Your task to perform on an android device: turn on javascript in the chrome app Image 0: 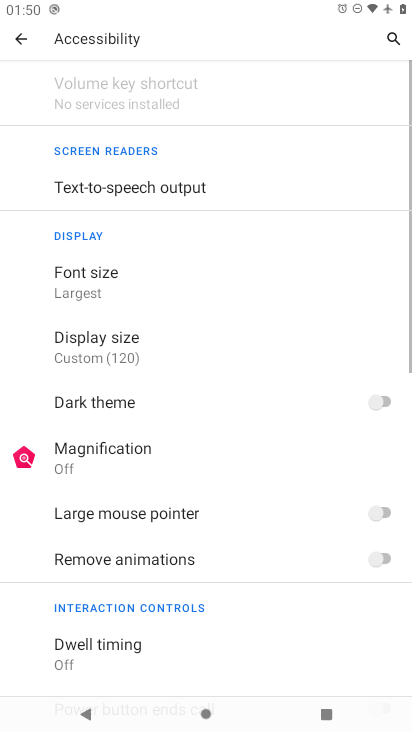
Step 0: press home button
Your task to perform on an android device: turn on javascript in the chrome app Image 1: 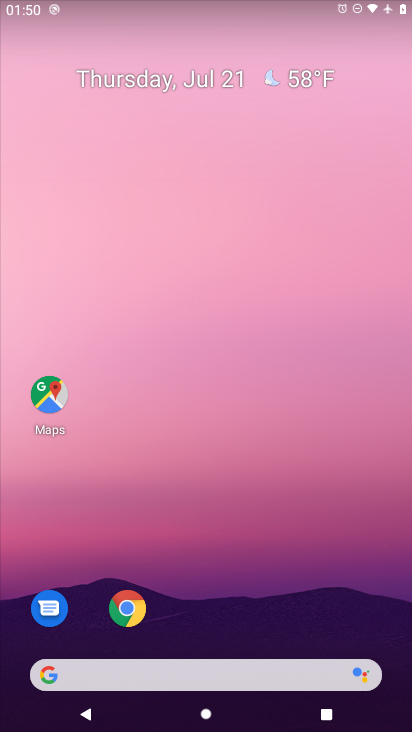
Step 1: drag from (249, 616) to (278, 68)
Your task to perform on an android device: turn on javascript in the chrome app Image 2: 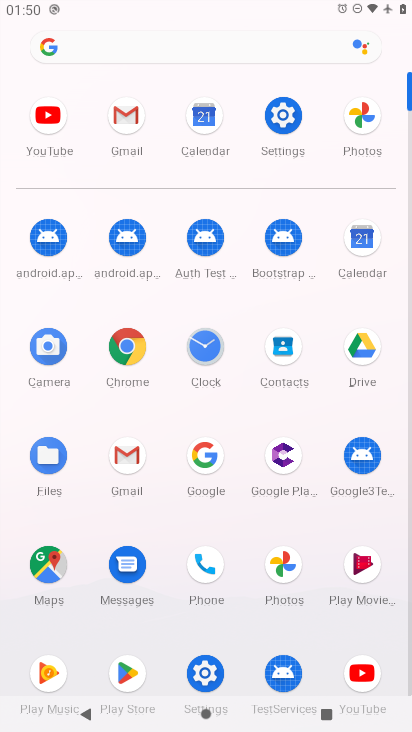
Step 2: click (127, 359)
Your task to perform on an android device: turn on javascript in the chrome app Image 3: 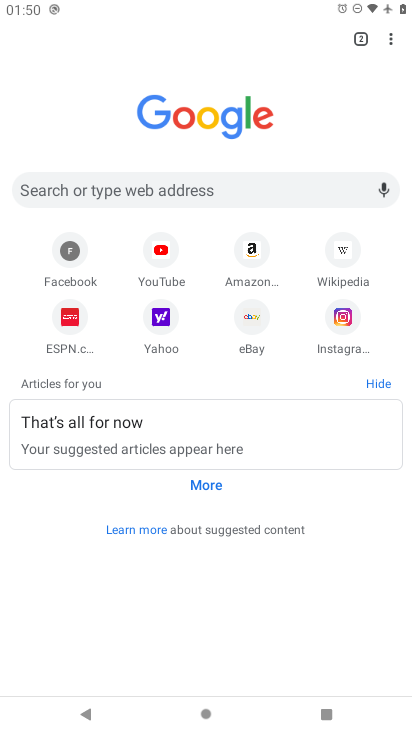
Step 3: drag from (388, 37) to (248, 325)
Your task to perform on an android device: turn on javascript in the chrome app Image 4: 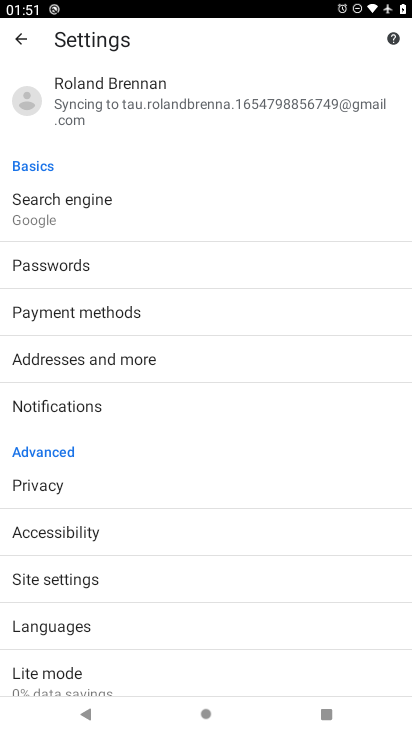
Step 4: click (63, 581)
Your task to perform on an android device: turn on javascript in the chrome app Image 5: 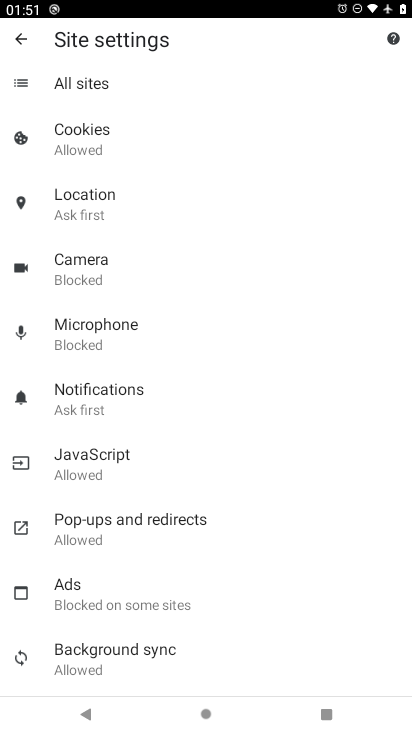
Step 5: click (88, 456)
Your task to perform on an android device: turn on javascript in the chrome app Image 6: 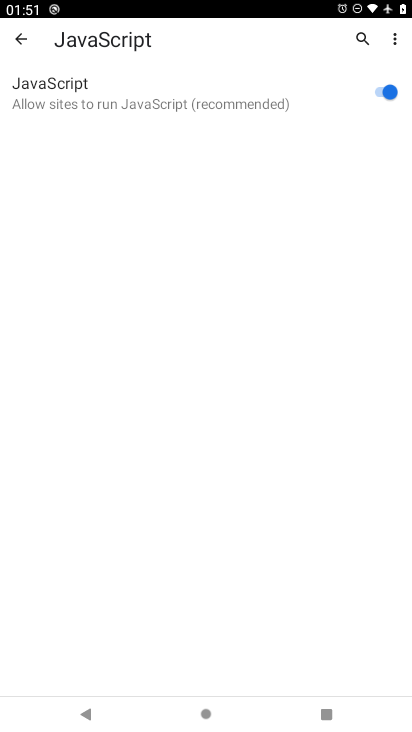
Step 6: task complete